Your task to perform on an android device: change text size in settings app Image 0: 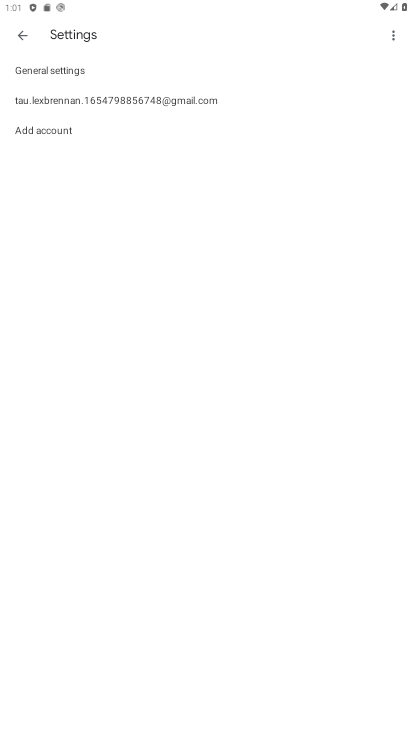
Step 0: press home button
Your task to perform on an android device: change text size in settings app Image 1: 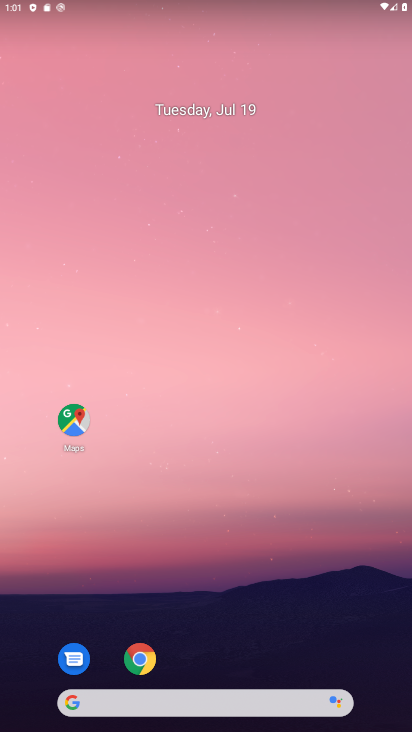
Step 1: click (138, 667)
Your task to perform on an android device: change text size in settings app Image 2: 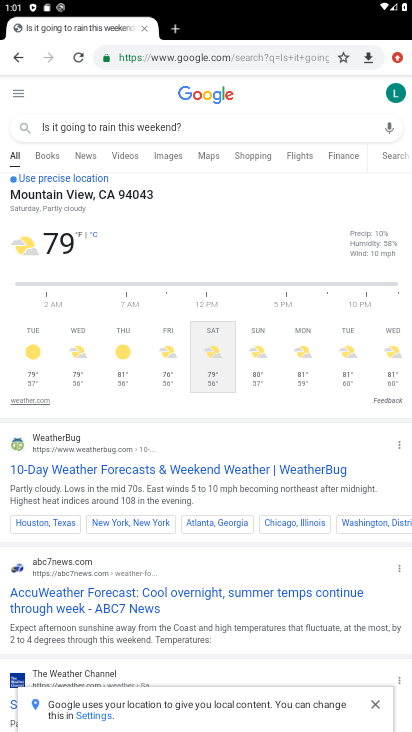
Step 2: press home button
Your task to perform on an android device: change text size in settings app Image 3: 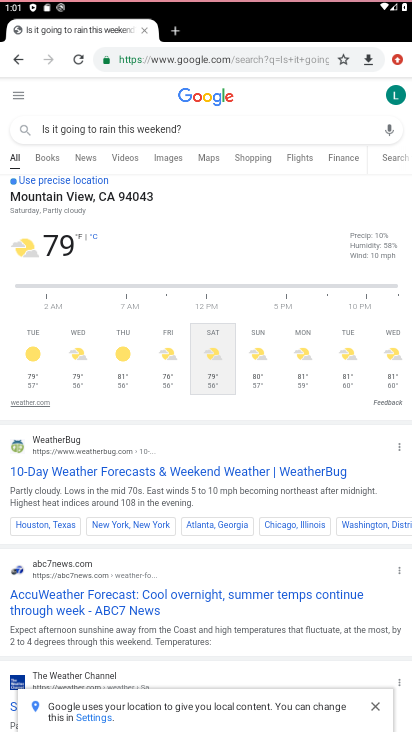
Step 3: drag from (274, 659) to (158, 3)
Your task to perform on an android device: change text size in settings app Image 4: 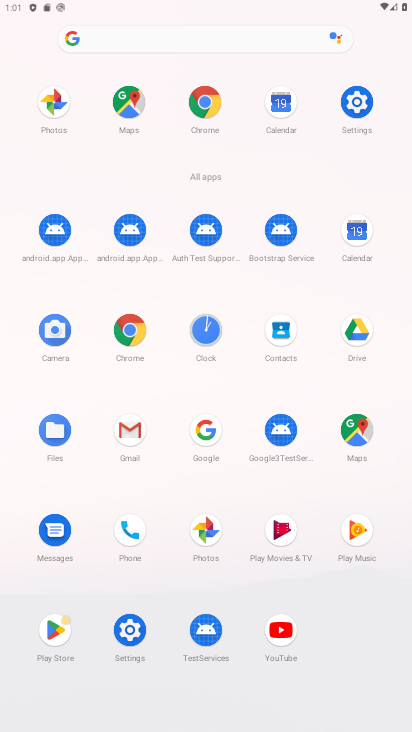
Step 4: click (343, 114)
Your task to perform on an android device: change text size in settings app Image 5: 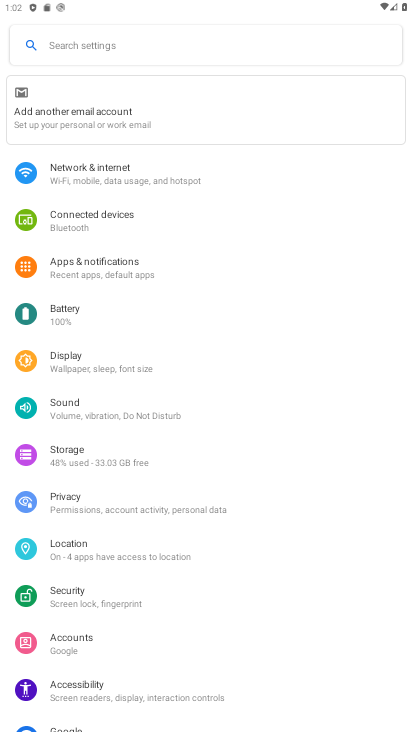
Step 5: click (72, 345)
Your task to perform on an android device: change text size in settings app Image 6: 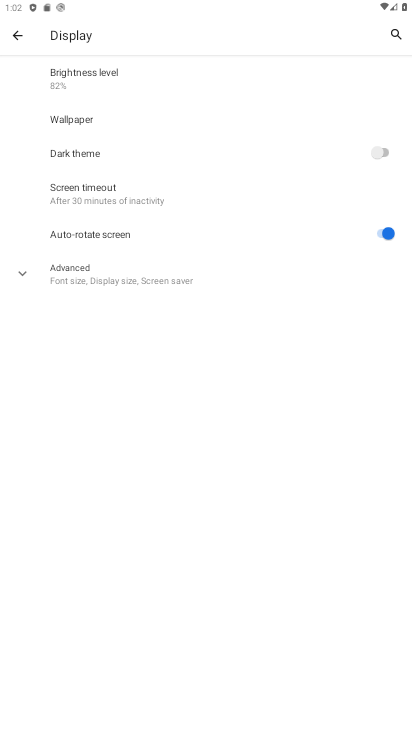
Step 6: click (100, 285)
Your task to perform on an android device: change text size in settings app Image 7: 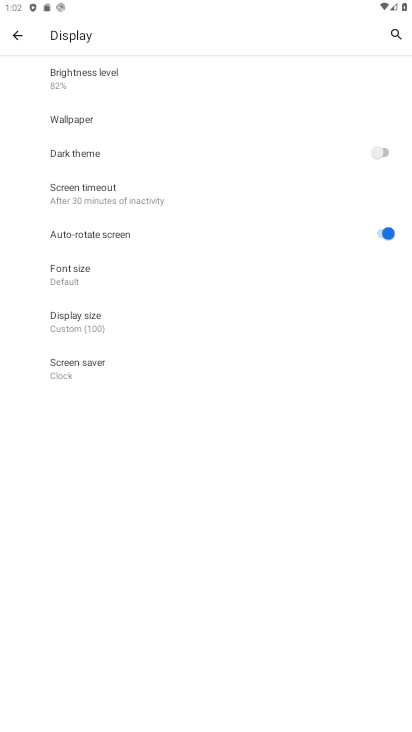
Step 7: click (64, 279)
Your task to perform on an android device: change text size in settings app Image 8: 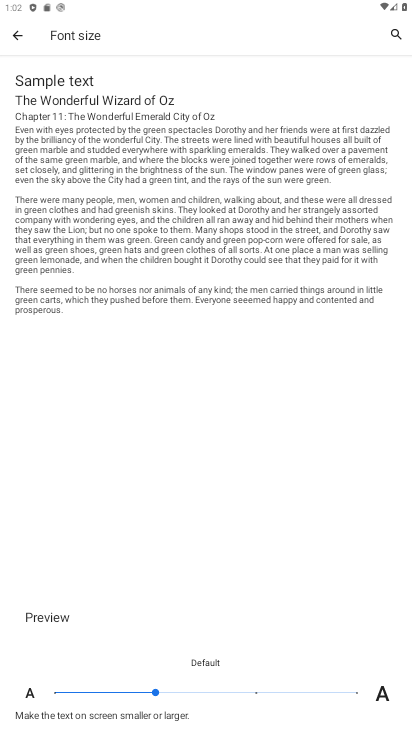
Step 8: click (383, 703)
Your task to perform on an android device: change text size in settings app Image 9: 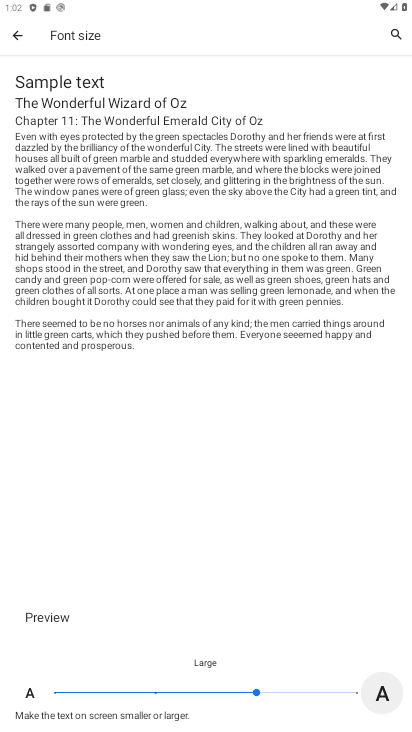
Step 9: task complete